Your task to perform on an android device: turn pop-ups off in chrome Image 0: 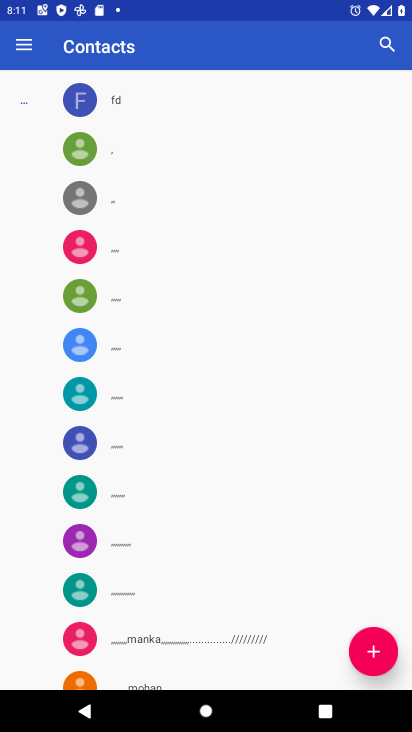
Step 0: press home button
Your task to perform on an android device: turn pop-ups off in chrome Image 1: 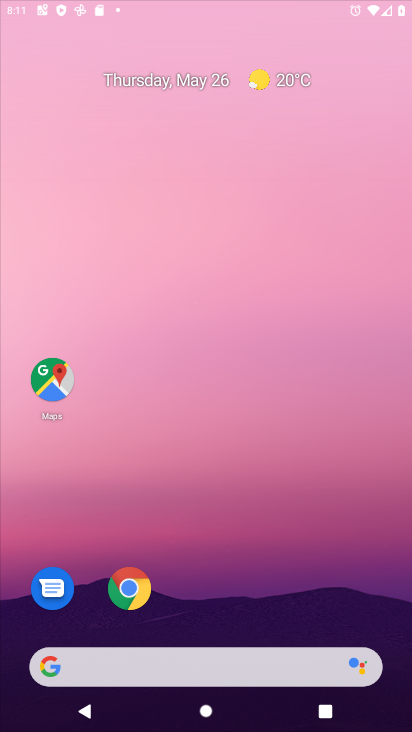
Step 1: drag from (393, 633) to (275, 19)
Your task to perform on an android device: turn pop-ups off in chrome Image 2: 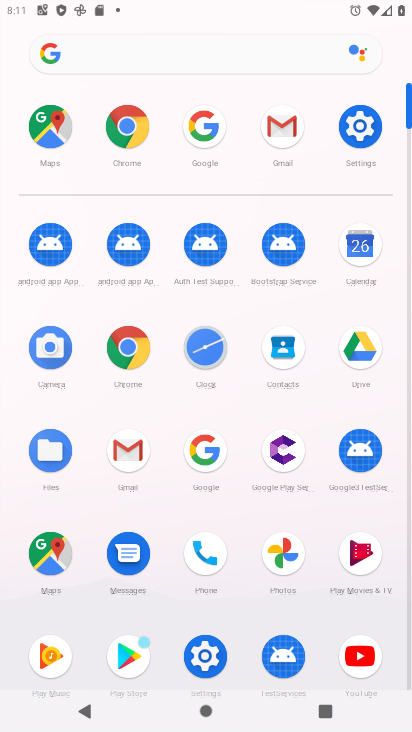
Step 2: click (120, 328)
Your task to perform on an android device: turn pop-ups off in chrome Image 3: 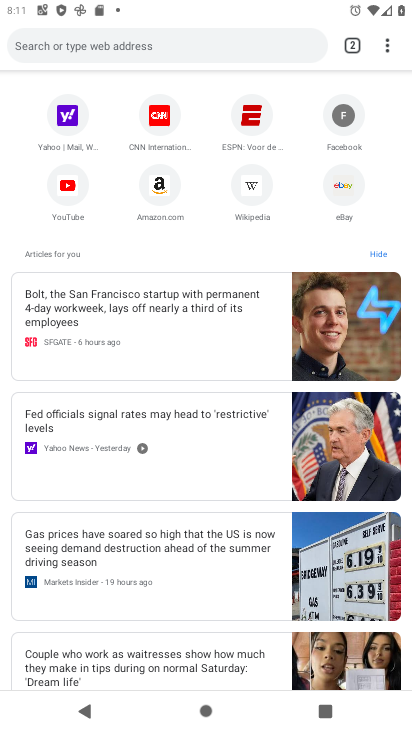
Step 3: click (393, 39)
Your task to perform on an android device: turn pop-ups off in chrome Image 4: 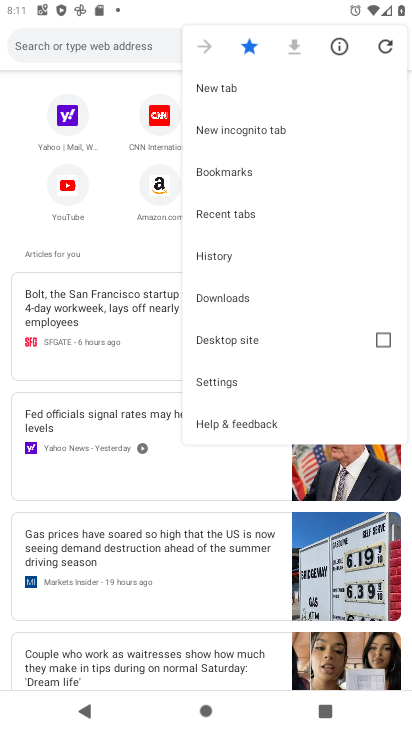
Step 4: click (227, 395)
Your task to perform on an android device: turn pop-ups off in chrome Image 5: 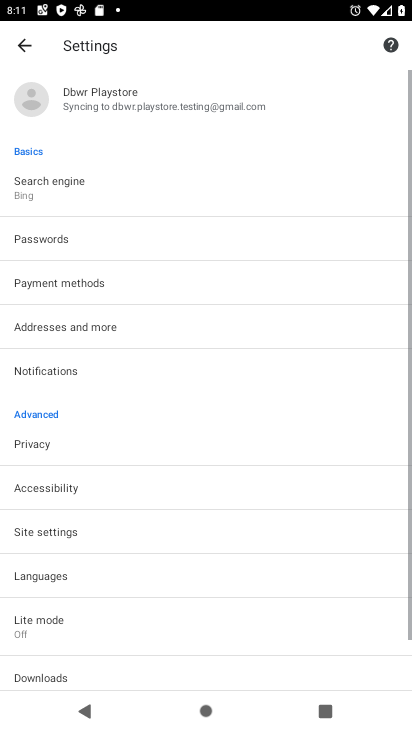
Step 5: click (86, 525)
Your task to perform on an android device: turn pop-ups off in chrome Image 6: 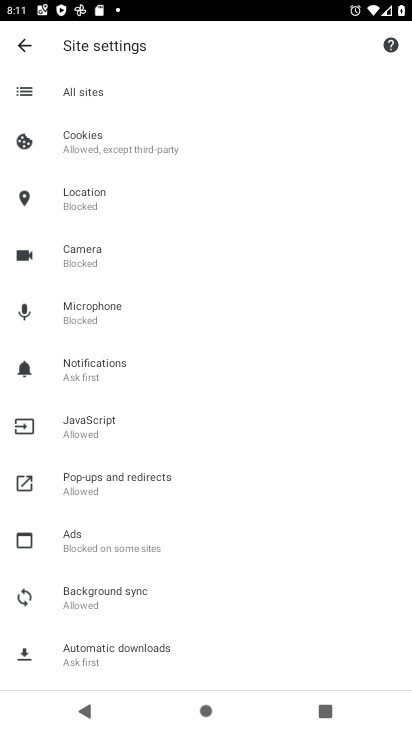
Step 6: click (103, 484)
Your task to perform on an android device: turn pop-ups off in chrome Image 7: 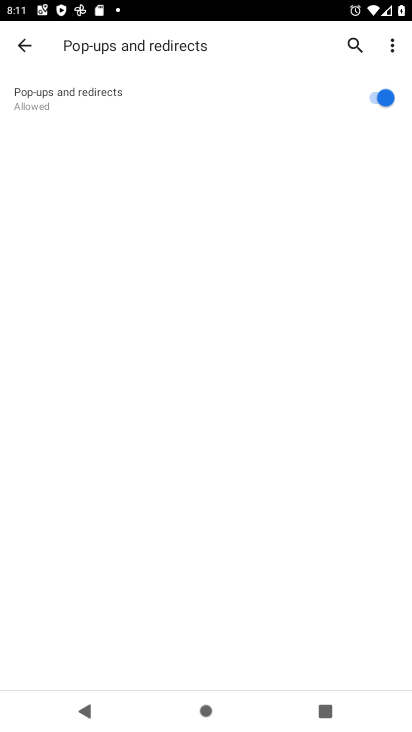
Step 7: click (379, 92)
Your task to perform on an android device: turn pop-ups off in chrome Image 8: 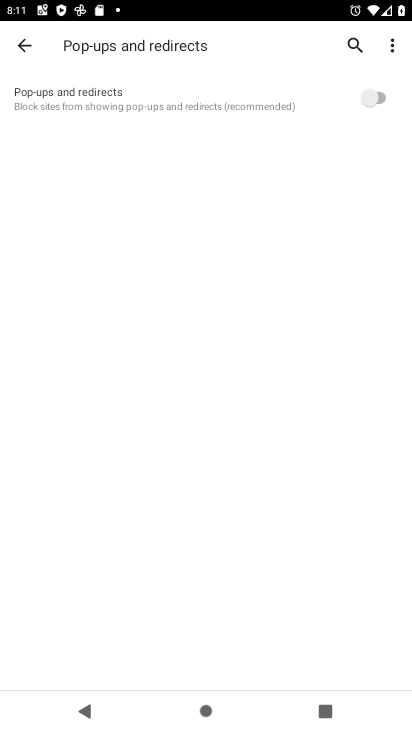
Step 8: task complete